Your task to perform on an android device: open app "Cash App" (install if not already installed) Image 0: 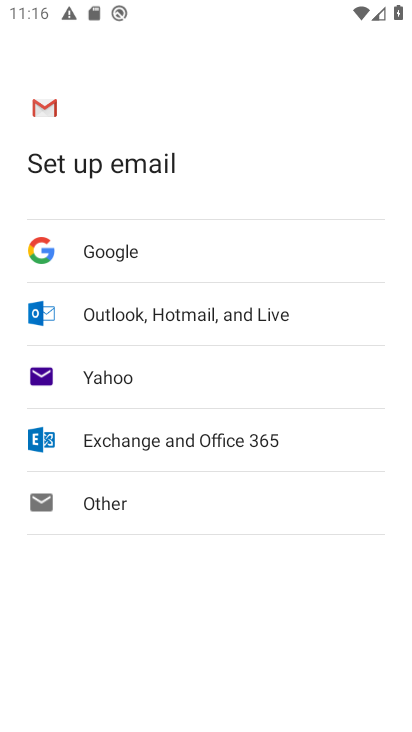
Step 0: press home button
Your task to perform on an android device: open app "Cash App" (install if not already installed) Image 1: 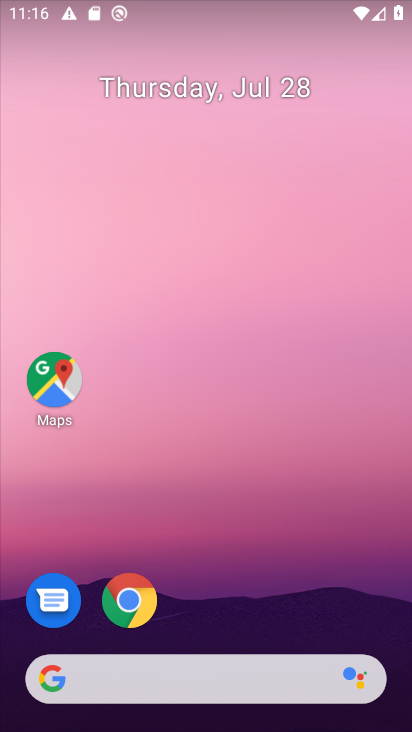
Step 1: drag from (192, 664) to (316, 90)
Your task to perform on an android device: open app "Cash App" (install if not already installed) Image 2: 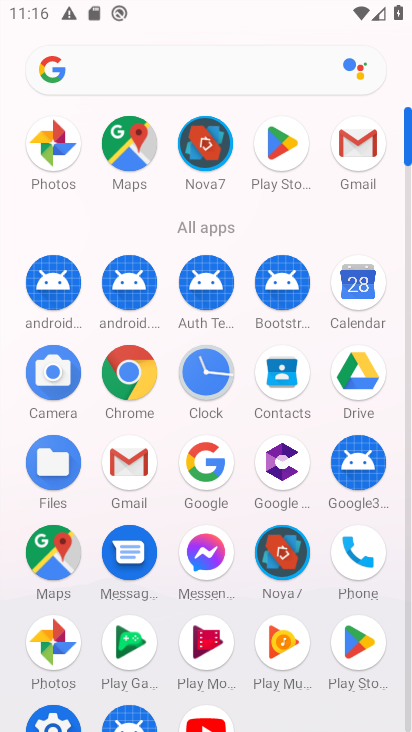
Step 2: click (275, 159)
Your task to perform on an android device: open app "Cash App" (install if not already installed) Image 3: 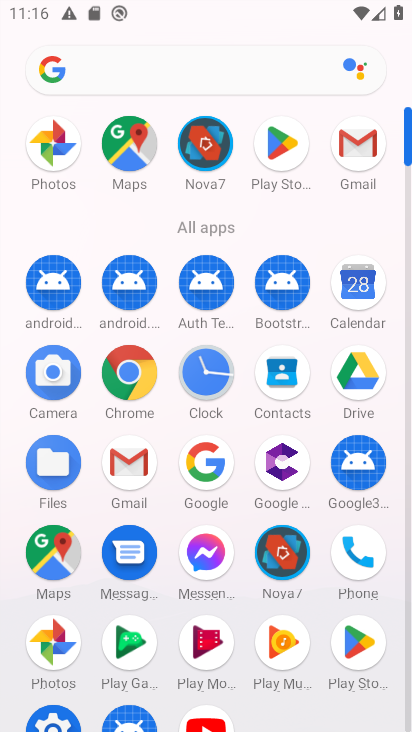
Step 3: click (275, 159)
Your task to perform on an android device: open app "Cash App" (install if not already installed) Image 4: 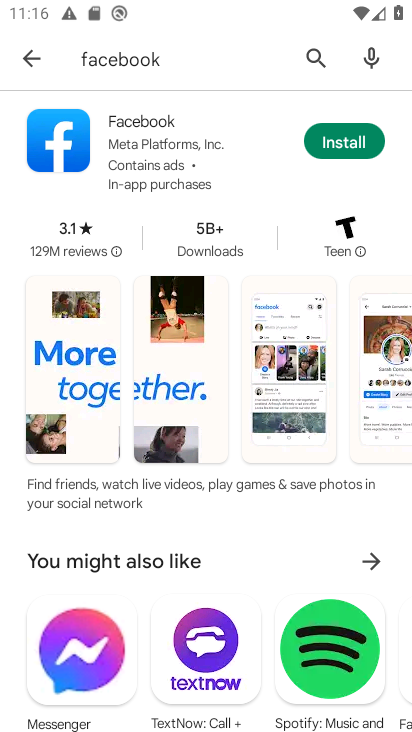
Step 4: click (315, 61)
Your task to perform on an android device: open app "Cash App" (install if not already installed) Image 5: 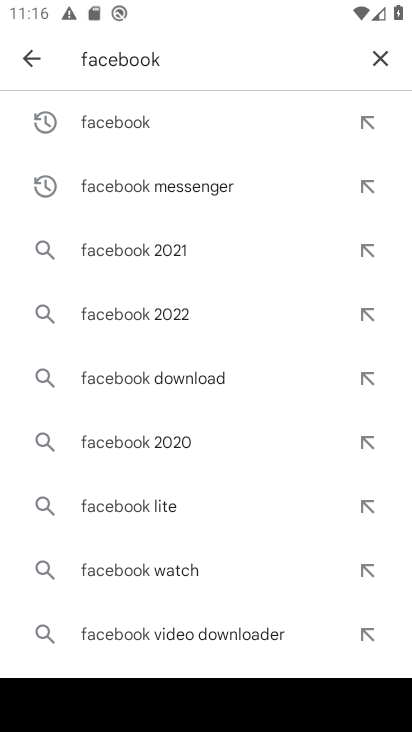
Step 5: click (381, 50)
Your task to perform on an android device: open app "Cash App" (install if not already installed) Image 6: 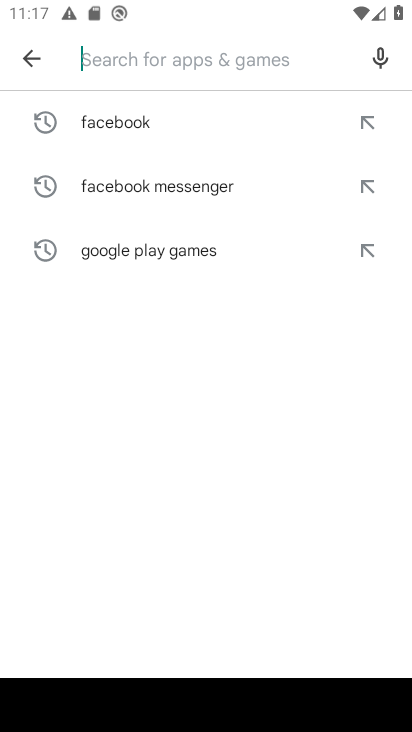
Step 6: type "Cash App"
Your task to perform on an android device: open app "Cash App" (install if not already installed) Image 7: 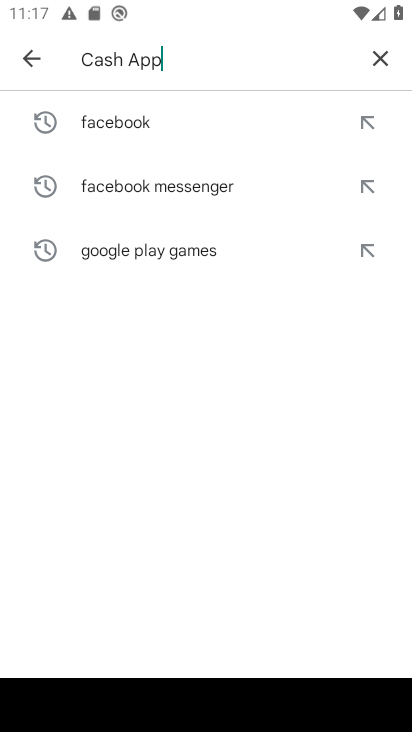
Step 7: type ""
Your task to perform on an android device: open app "Cash App" (install if not already installed) Image 8: 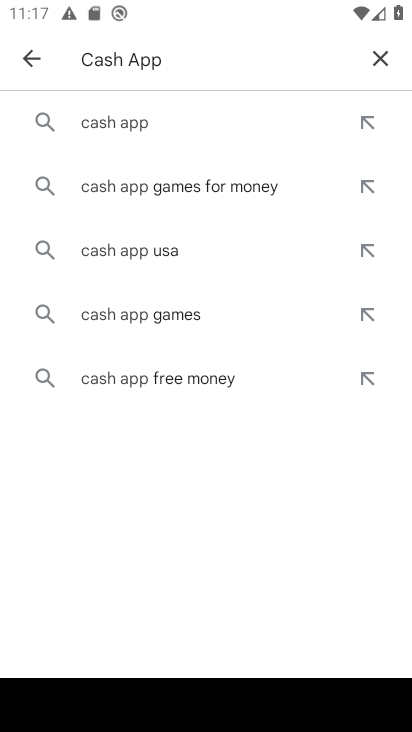
Step 8: click (280, 119)
Your task to perform on an android device: open app "Cash App" (install if not already installed) Image 9: 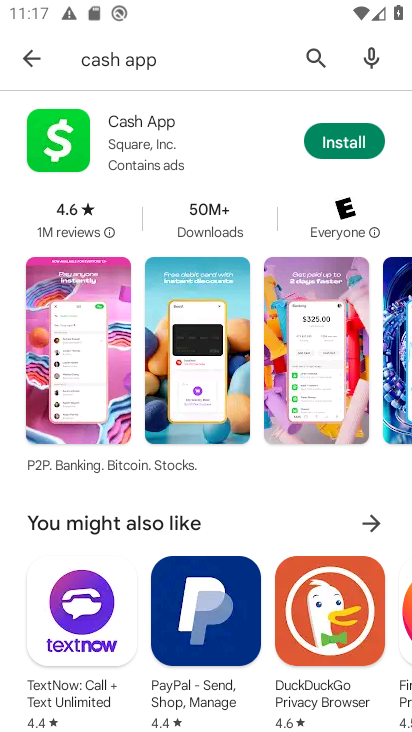
Step 9: click (351, 136)
Your task to perform on an android device: open app "Cash App" (install if not already installed) Image 10: 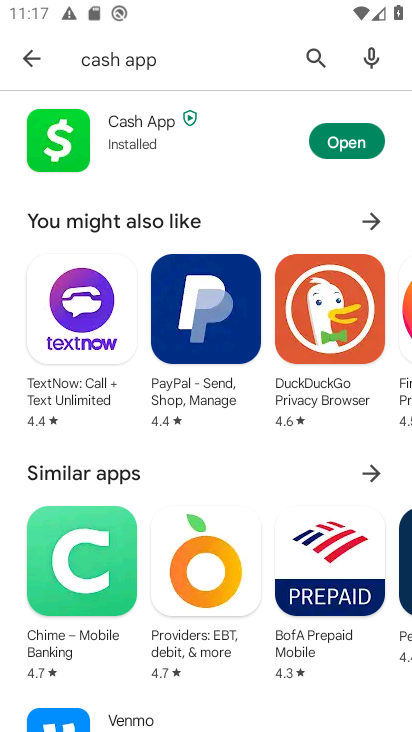
Step 10: click (335, 136)
Your task to perform on an android device: open app "Cash App" (install if not already installed) Image 11: 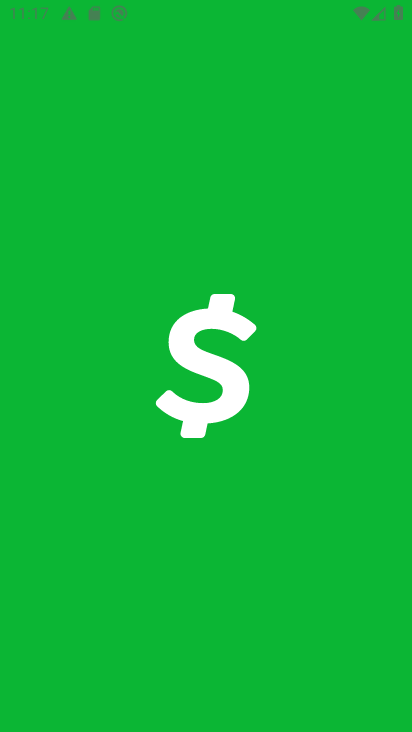
Step 11: task complete